Your task to perform on an android device: Show me recent news Image 0: 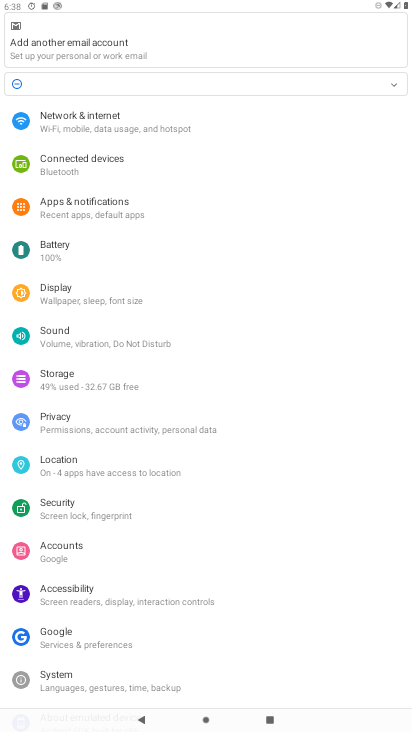
Step 0: press home button
Your task to perform on an android device: Show me recent news Image 1: 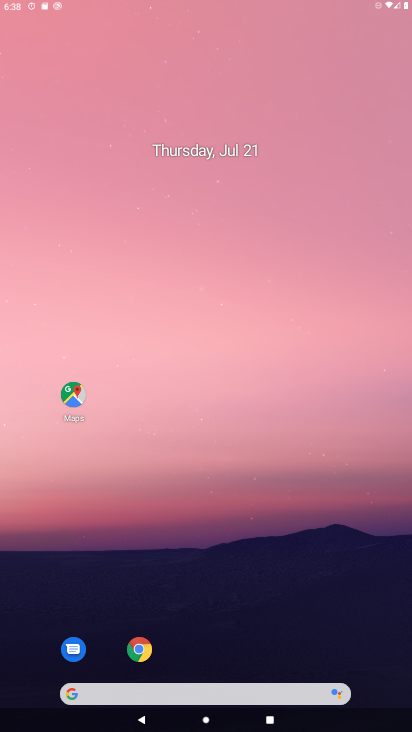
Step 1: drag from (389, 683) to (315, 80)
Your task to perform on an android device: Show me recent news Image 2: 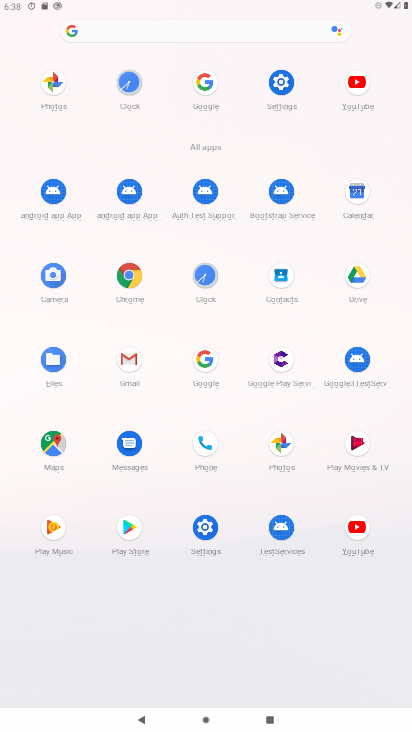
Step 2: click (208, 347)
Your task to perform on an android device: Show me recent news Image 3: 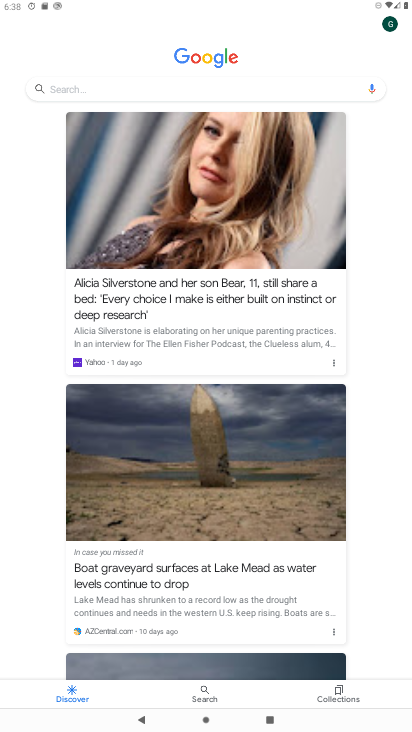
Step 3: click (68, 85)
Your task to perform on an android device: Show me recent news Image 4: 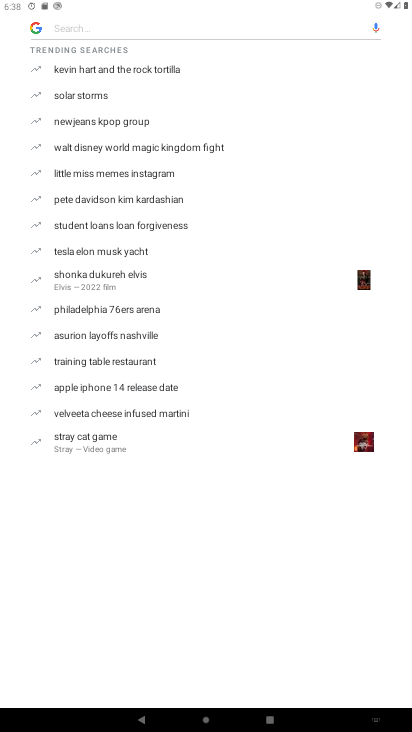
Step 4: type "Show me recent news"
Your task to perform on an android device: Show me recent news Image 5: 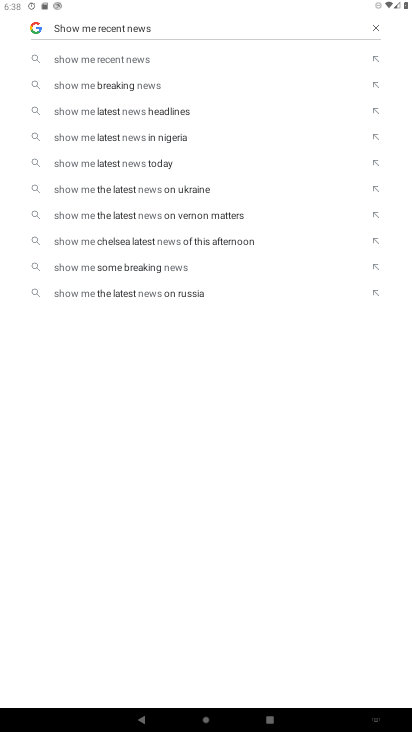
Step 5: click (85, 58)
Your task to perform on an android device: Show me recent news Image 6: 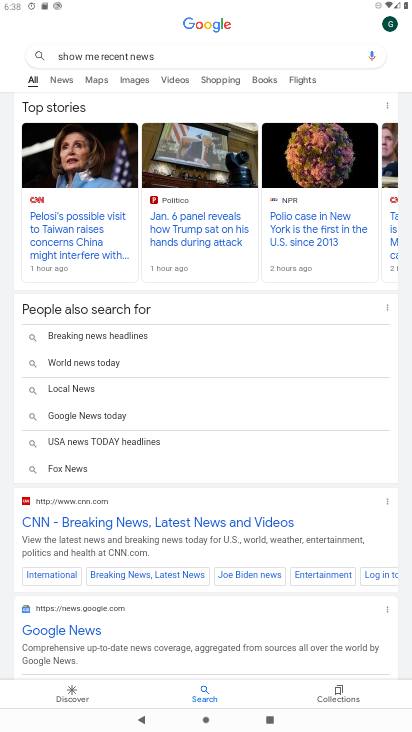
Step 6: task complete